Your task to perform on an android device: Set the phone to "Do not disturb". Image 0: 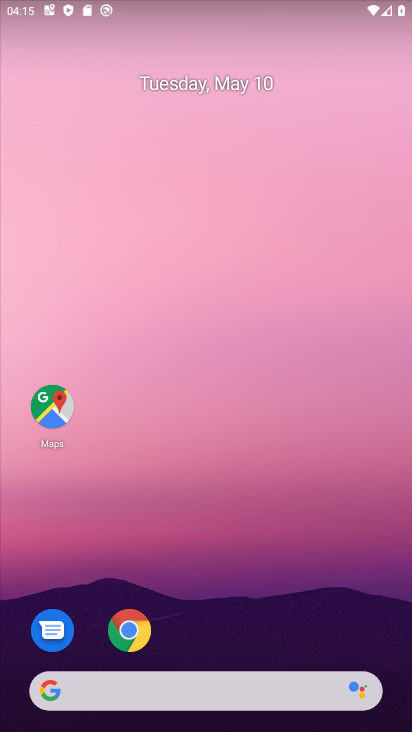
Step 0: drag from (193, 10) to (226, 567)
Your task to perform on an android device: Set the phone to "Do not disturb". Image 1: 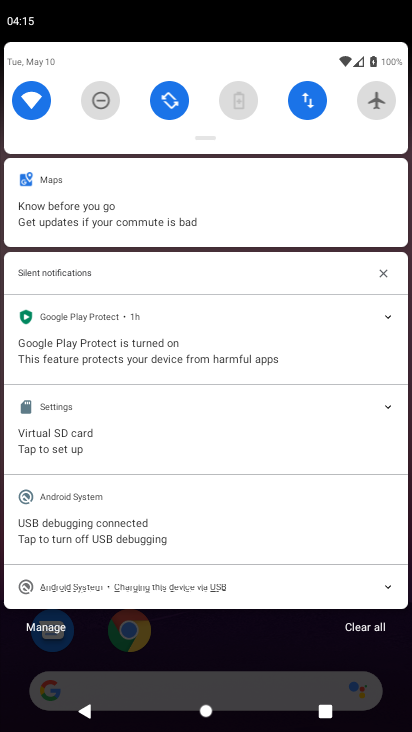
Step 1: click (102, 99)
Your task to perform on an android device: Set the phone to "Do not disturb". Image 2: 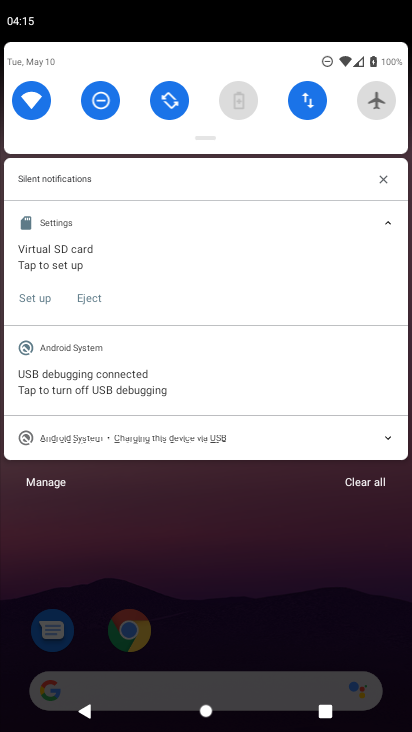
Step 2: task complete